Your task to perform on an android device: show emergency info Image 0: 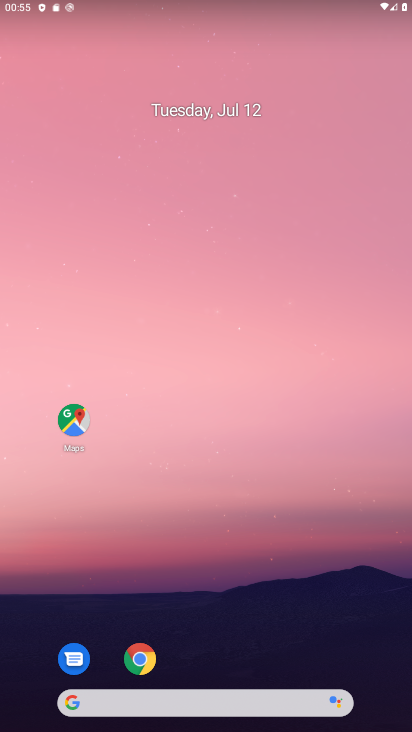
Step 0: drag from (209, 638) to (273, 288)
Your task to perform on an android device: show emergency info Image 1: 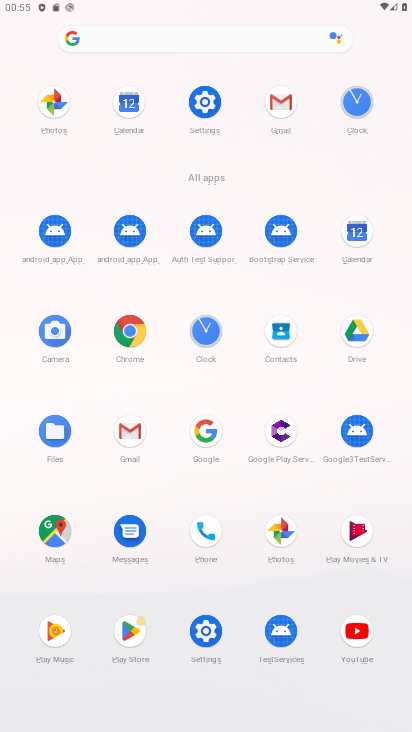
Step 1: click (205, 100)
Your task to perform on an android device: show emergency info Image 2: 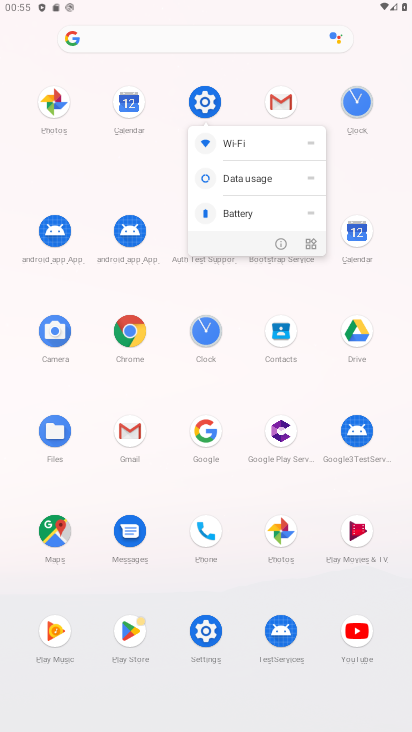
Step 2: click (284, 238)
Your task to perform on an android device: show emergency info Image 3: 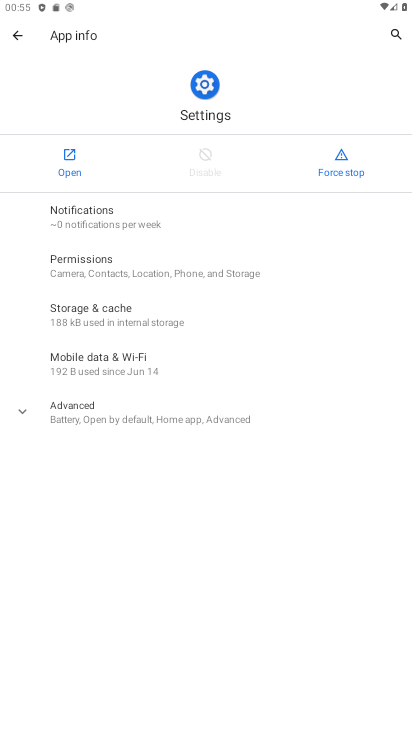
Step 3: click (67, 164)
Your task to perform on an android device: show emergency info Image 4: 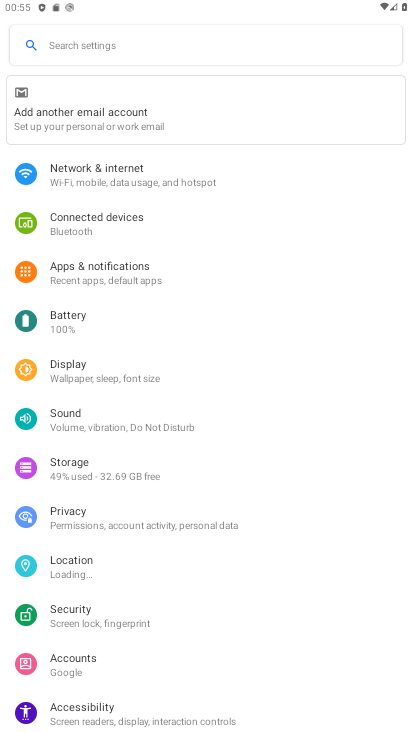
Step 4: drag from (226, 665) to (249, 186)
Your task to perform on an android device: show emergency info Image 5: 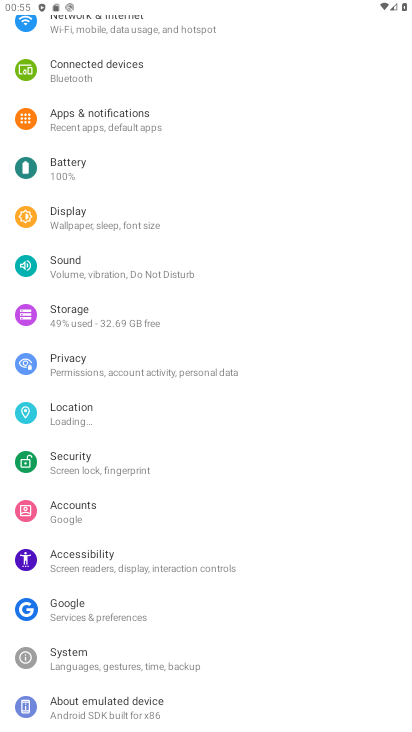
Step 5: drag from (189, 619) to (177, 281)
Your task to perform on an android device: show emergency info Image 6: 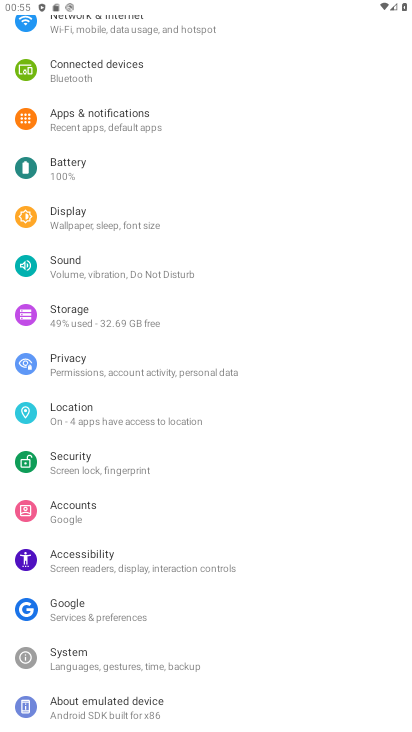
Step 6: click (162, 703)
Your task to perform on an android device: show emergency info Image 7: 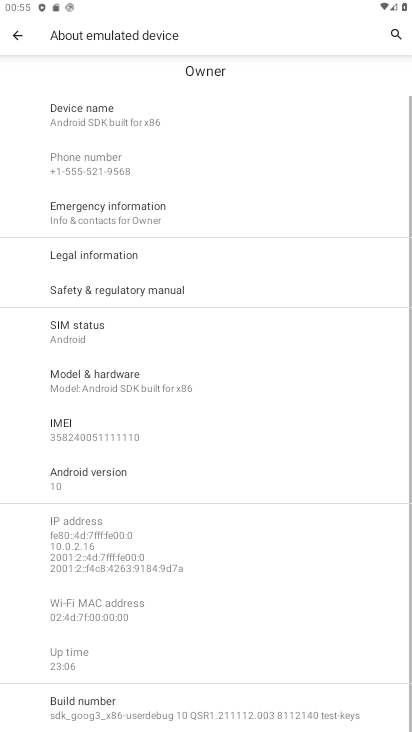
Step 7: drag from (190, 630) to (216, 302)
Your task to perform on an android device: show emergency info Image 8: 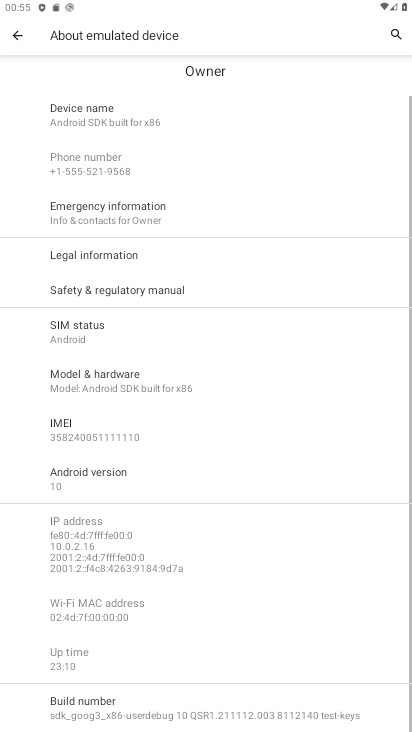
Step 8: drag from (195, 466) to (181, 286)
Your task to perform on an android device: show emergency info Image 9: 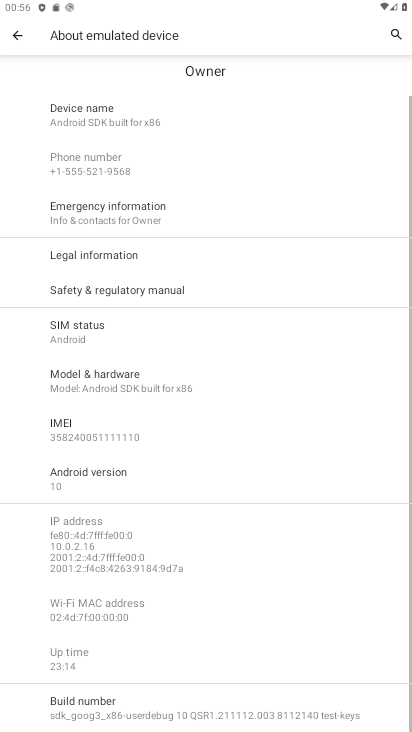
Step 9: click (147, 213)
Your task to perform on an android device: show emergency info Image 10: 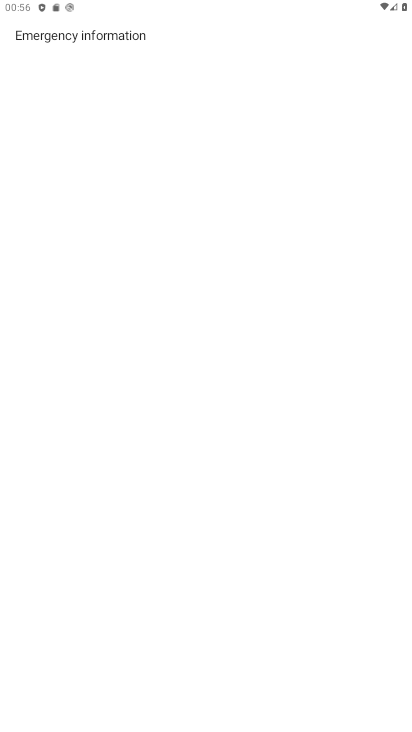
Step 10: click (165, 211)
Your task to perform on an android device: show emergency info Image 11: 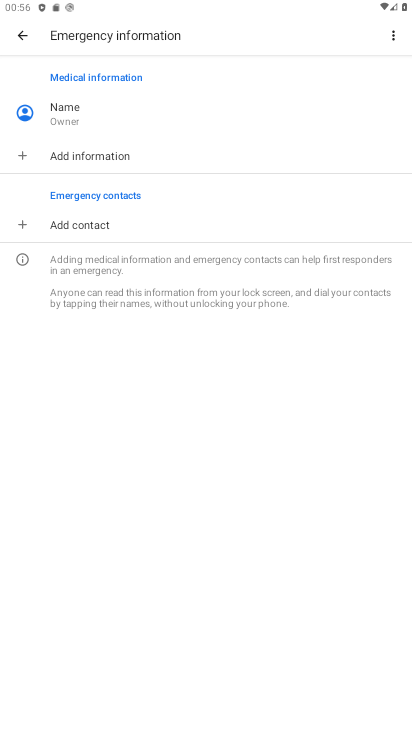
Step 11: task complete